Your task to perform on an android device: Open calendar and show me the third week of next month Image 0: 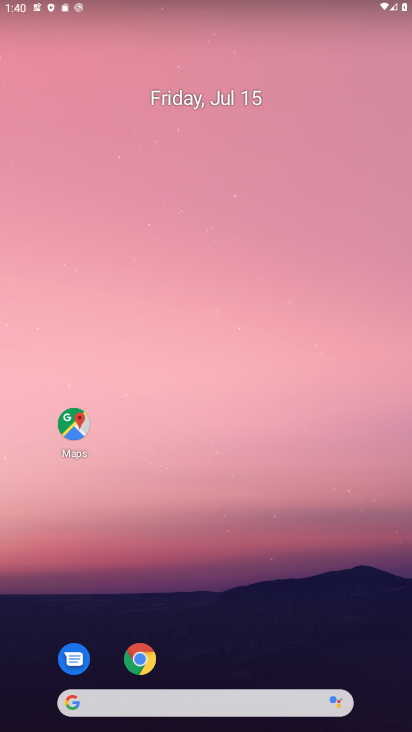
Step 0: drag from (158, 669) to (239, 226)
Your task to perform on an android device: Open calendar and show me the third week of next month Image 1: 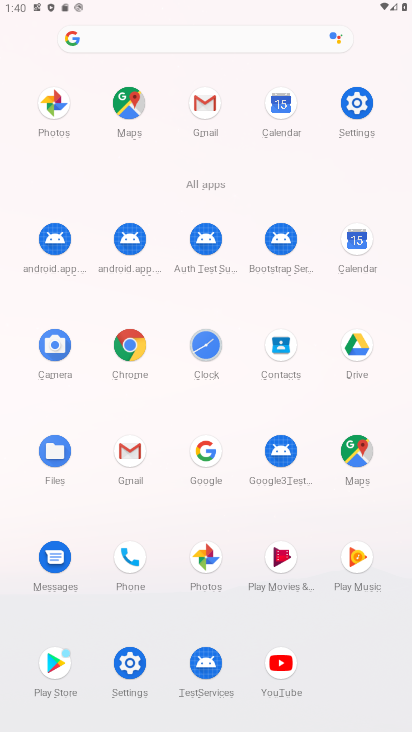
Step 1: click (361, 231)
Your task to perform on an android device: Open calendar and show me the third week of next month Image 2: 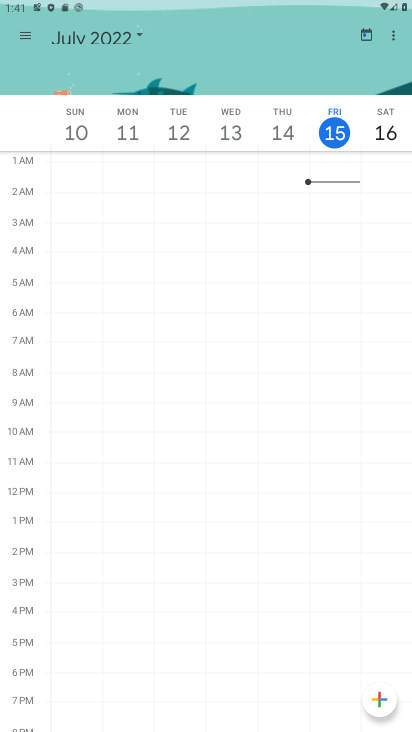
Step 2: click (21, 35)
Your task to perform on an android device: Open calendar and show me the third week of next month Image 3: 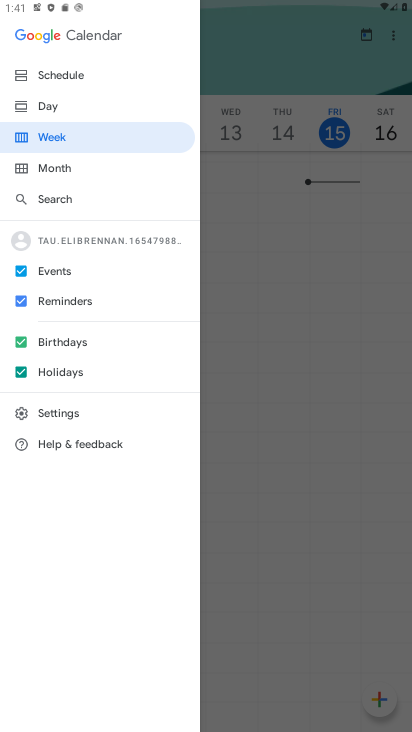
Step 3: click (86, 175)
Your task to perform on an android device: Open calendar and show me the third week of next month Image 4: 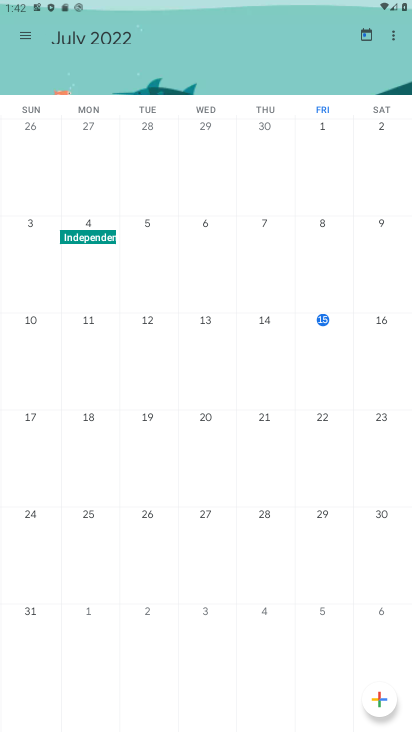
Step 4: click (23, 35)
Your task to perform on an android device: Open calendar and show me the third week of next month Image 5: 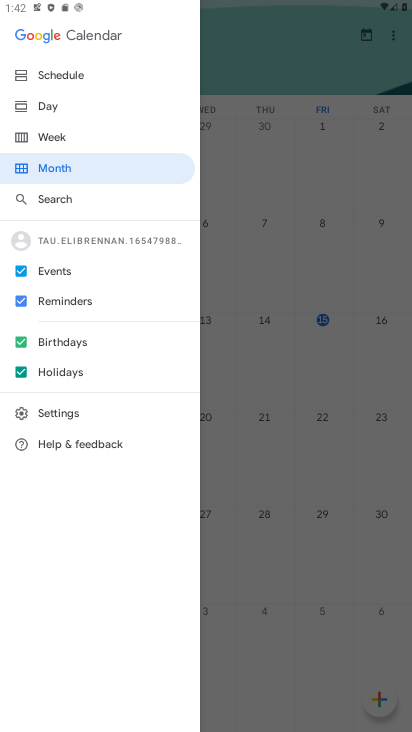
Step 5: click (88, 167)
Your task to perform on an android device: Open calendar and show me the third week of next month Image 6: 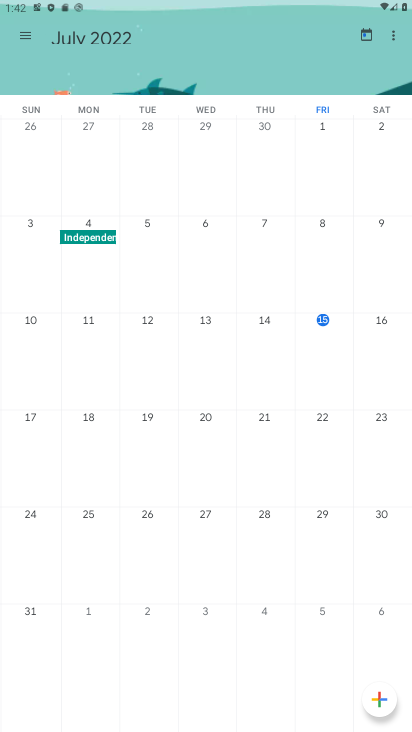
Step 6: task complete